Your task to perform on an android device: Open wifi settings Image 0: 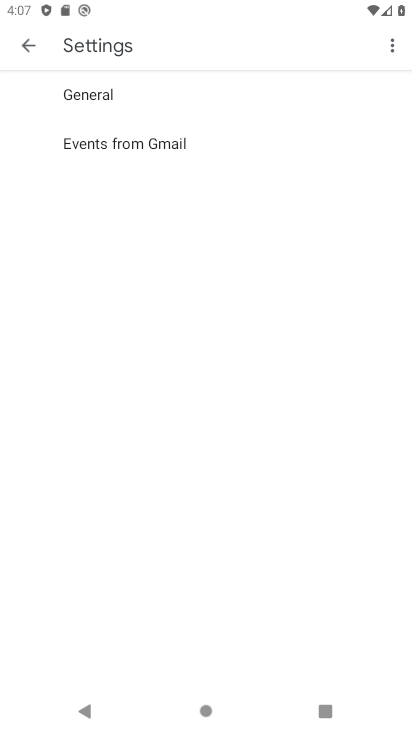
Step 0: click (17, 46)
Your task to perform on an android device: Open wifi settings Image 1: 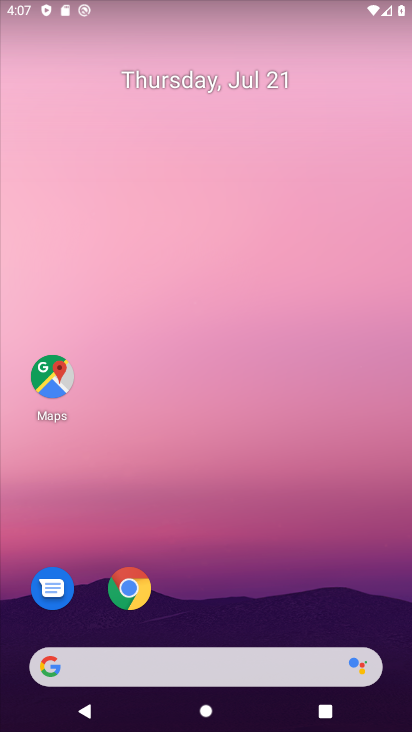
Step 1: drag from (262, 627) to (239, 383)
Your task to perform on an android device: Open wifi settings Image 2: 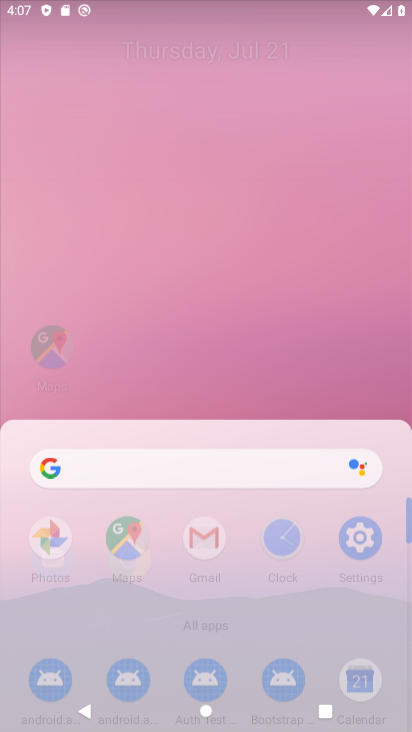
Step 2: click (239, 383)
Your task to perform on an android device: Open wifi settings Image 3: 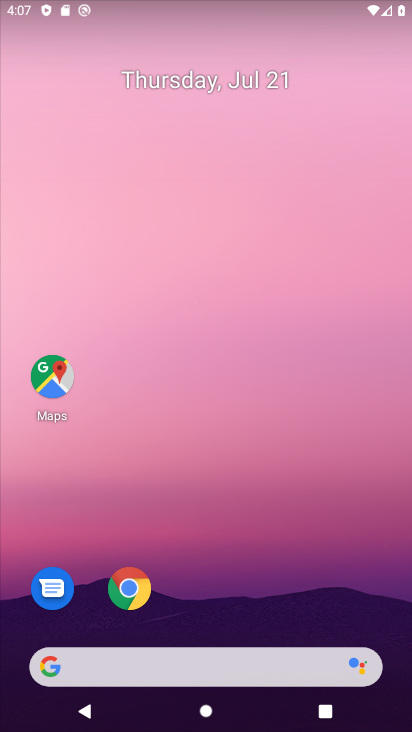
Step 3: drag from (290, 465) to (275, 262)
Your task to perform on an android device: Open wifi settings Image 4: 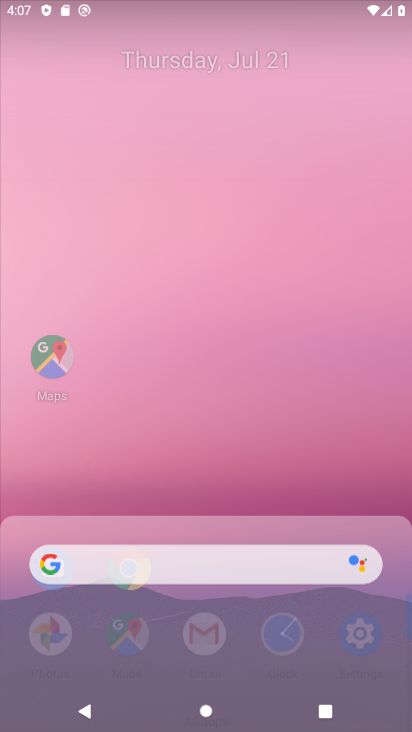
Step 4: click (295, 204)
Your task to perform on an android device: Open wifi settings Image 5: 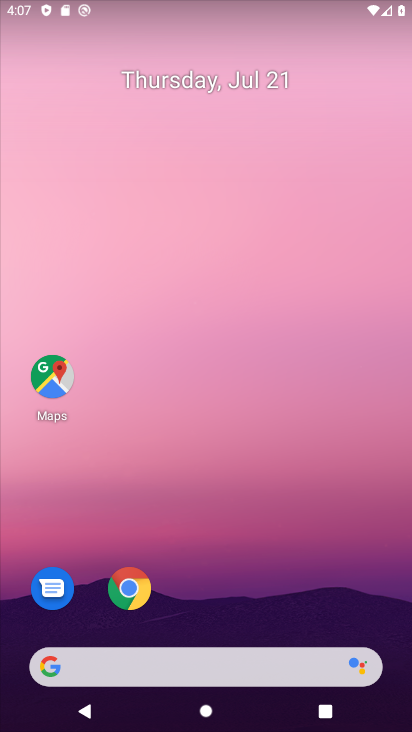
Step 5: drag from (241, 446) to (350, 113)
Your task to perform on an android device: Open wifi settings Image 6: 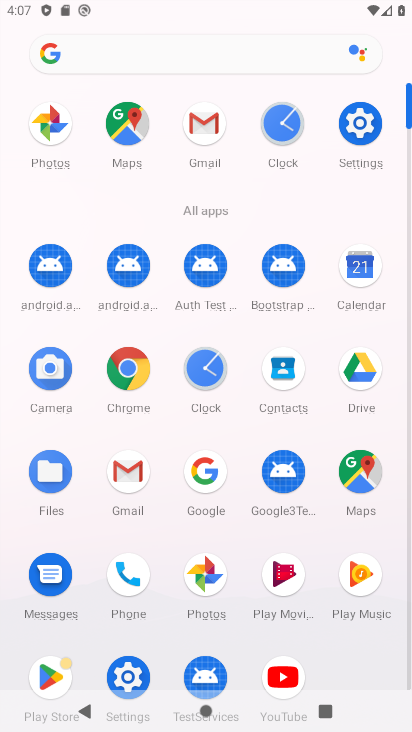
Step 6: click (355, 130)
Your task to perform on an android device: Open wifi settings Image 7: 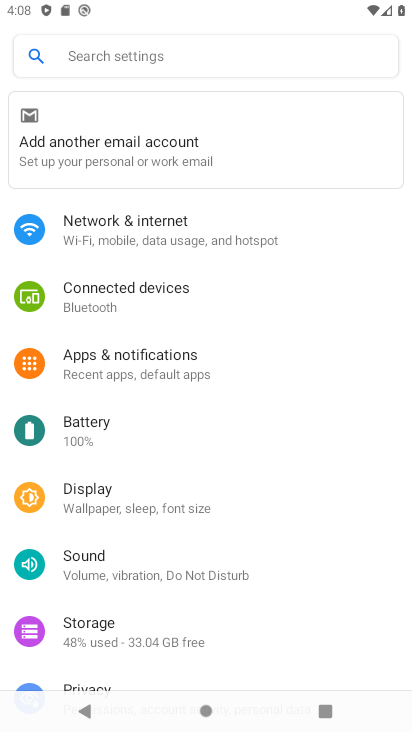
Step 7: click (174, 219)
Your task to perform on an android device: Open wifi settings Image 8: 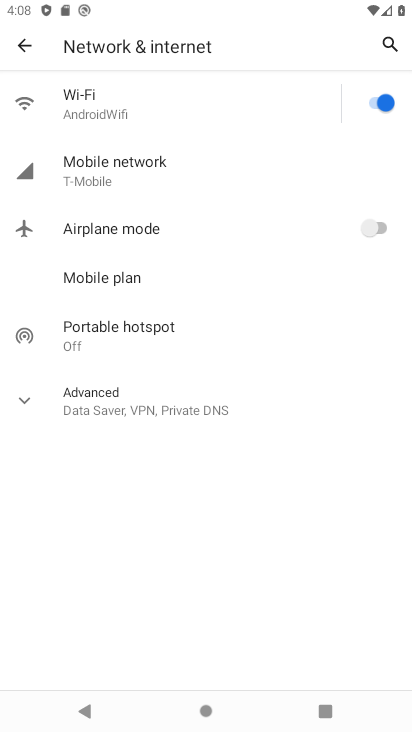
Step 8: task complete